Your task to perform on an android device: check data usage Image 0: 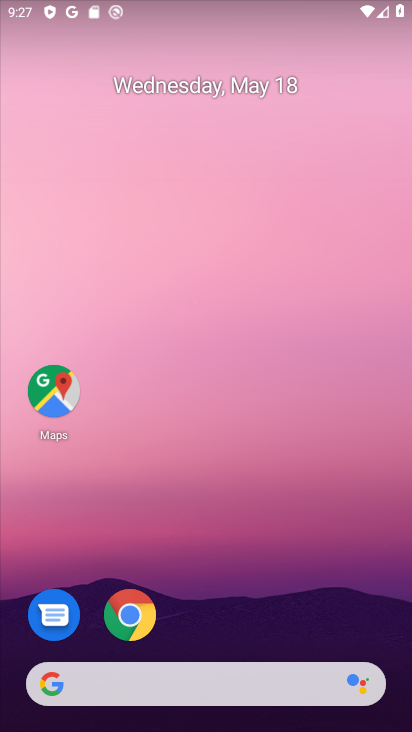
Step 0: drag from (316, 12) to (294, 443)
Your task to perform on an android device: check data usage Image 1: 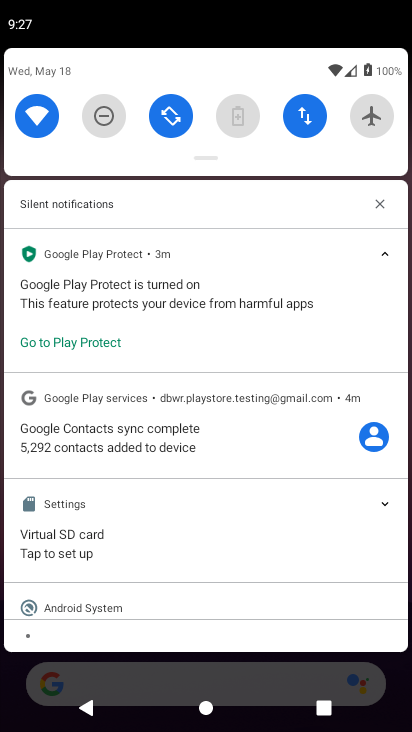
Step 1: drag from (322, 137) to (320, 574)
Your task to perform on an android device: check data usage Image 2: 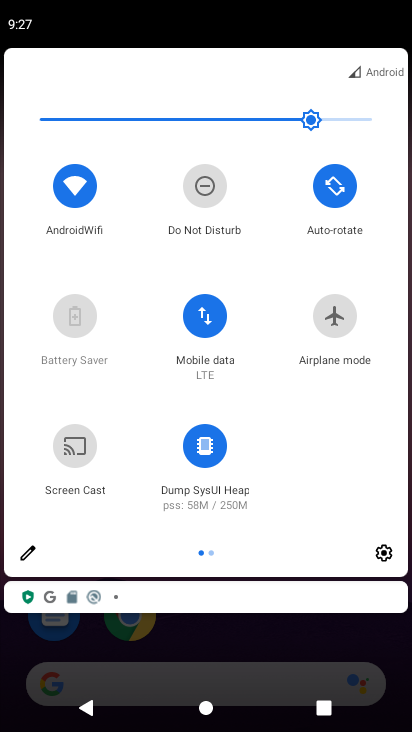
Step 2: click (208, 320)
Your task to perform on an android device: check data usage Image 3: 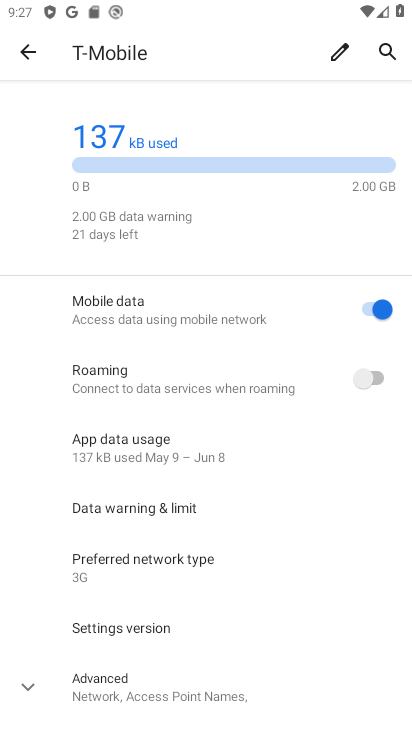
Step 3: task complete